Your task to perform on an android device: toggle notifications settings in the gmail app Image 0: 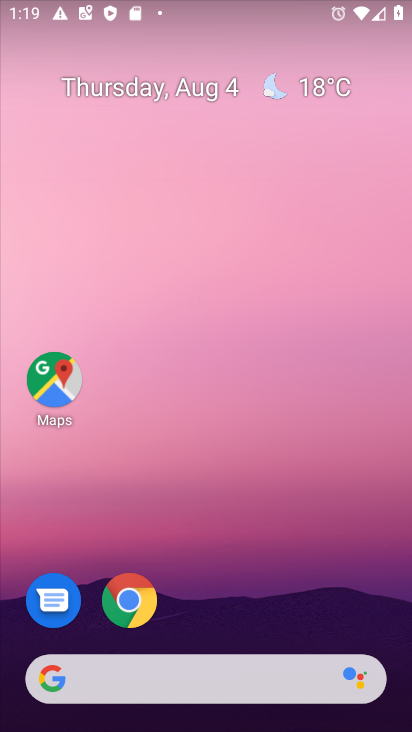
Step 0: drag from (131, 681) to (234, 188)
Your task to perform on an android device: toggle notifications settings in the gmail app Image 1: 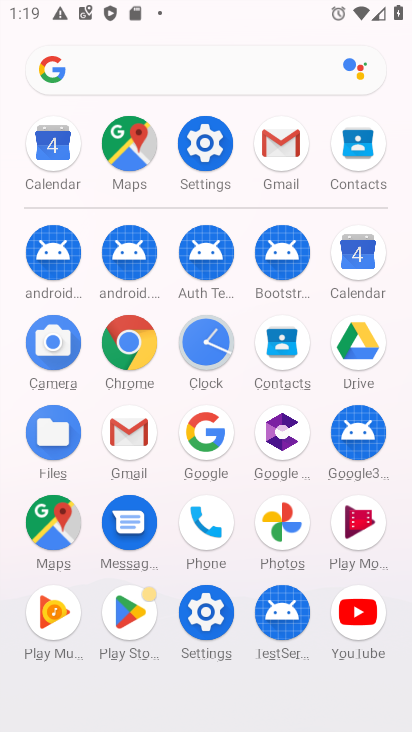
Step 1: click (287, 147)
Your task to perform on an android device: toggle notifications settings in the gmail app Image 2: 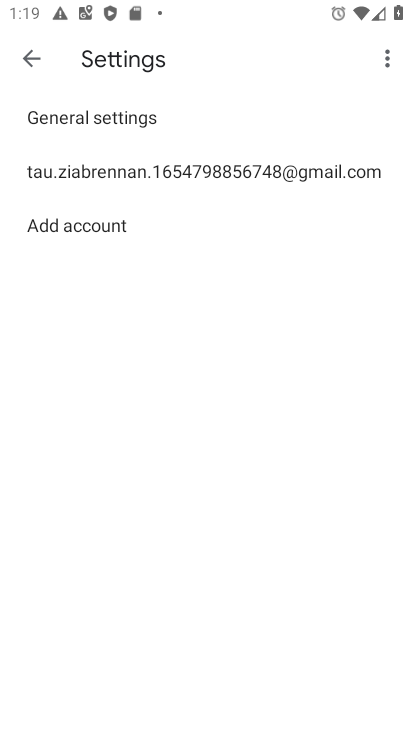
Step 2: click (255, 169)
Your task to perform on an android device: toggle notifications settings in the gmail app Image 3: 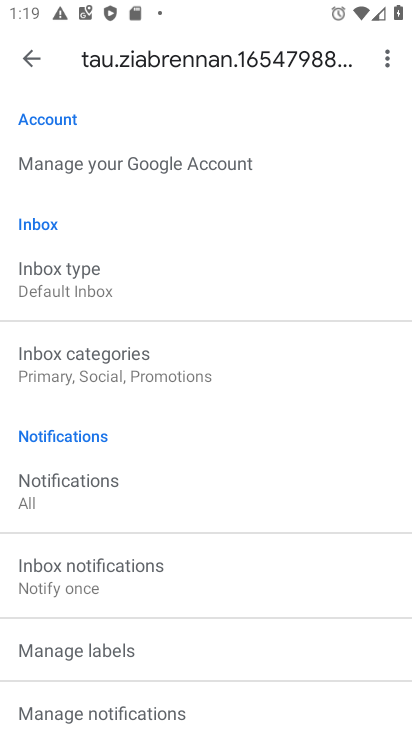
Step 3: click (61, 486)
Your task to perform on an android device: toggle notifications settings in the gmail app Image 4: 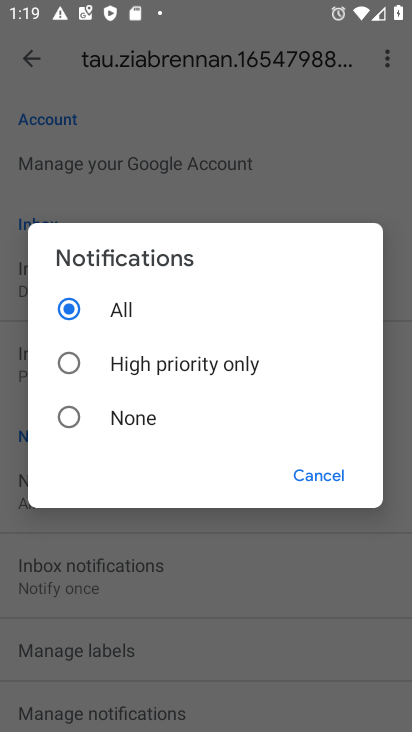
Step 4: click (68, 419)
Your task to perform on an android device: toggle notifications settings in the gmail app Image 5: 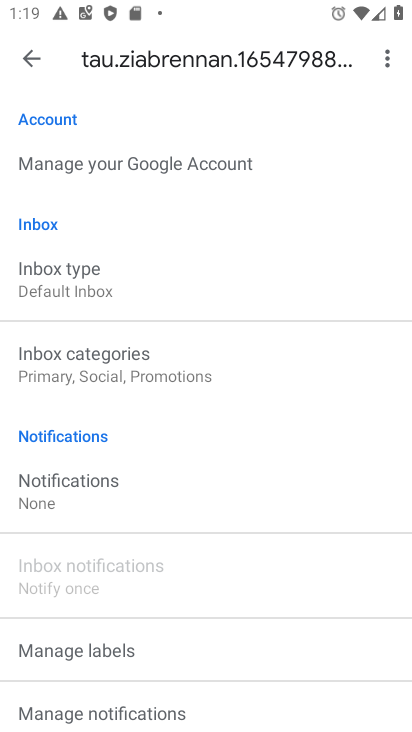
Step 5: task complete